Your task to perform on an android device: toggle location history Image 0: 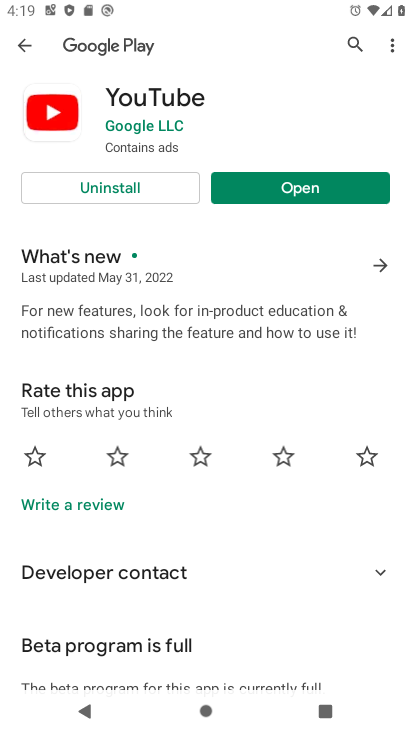
Step 0: drag from (281, 359) to (264, 213)
Your task to perform on an android device: toggle location history Image 1: 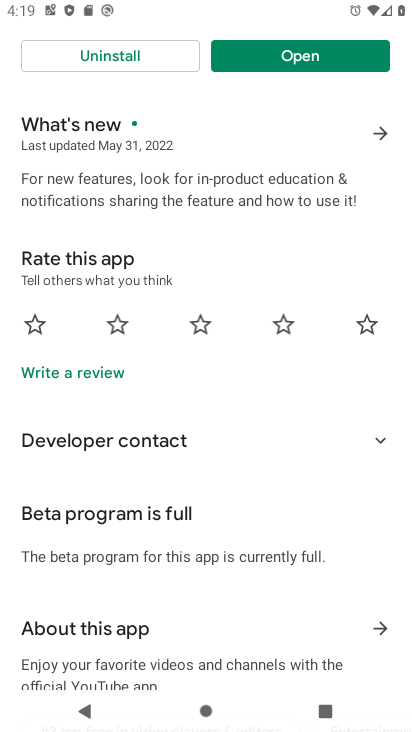
Step 1: press home button
Your task to perform on an android device: toggle location history Image 2: 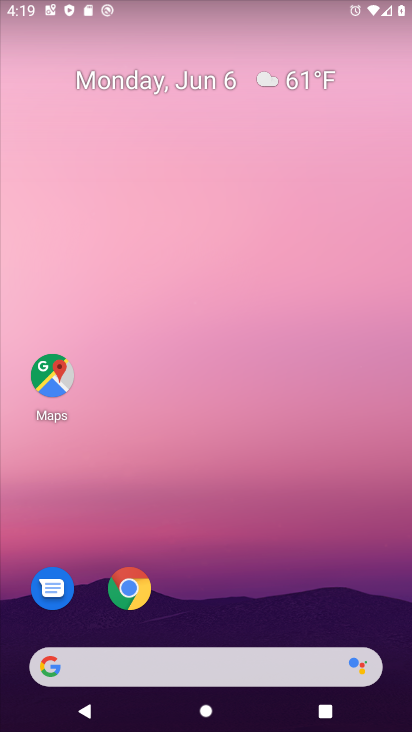
Step 2: click (54, 382)
Your task to perform on an android device: toggle location history Image 3: 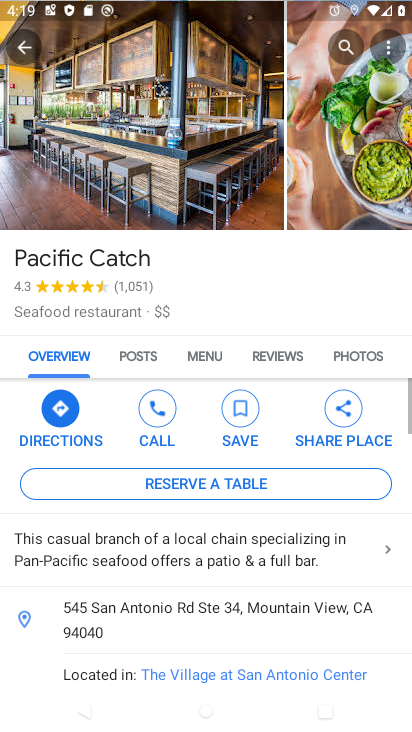
Step 3: press back button
Your task to perform on an android device: toggle location history Image 4: 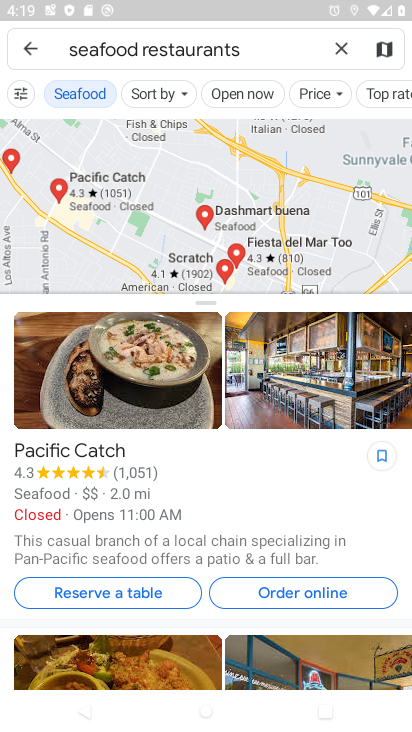
Step 4: press back button
Your task to perform on an android device: toggle location history Image 5: 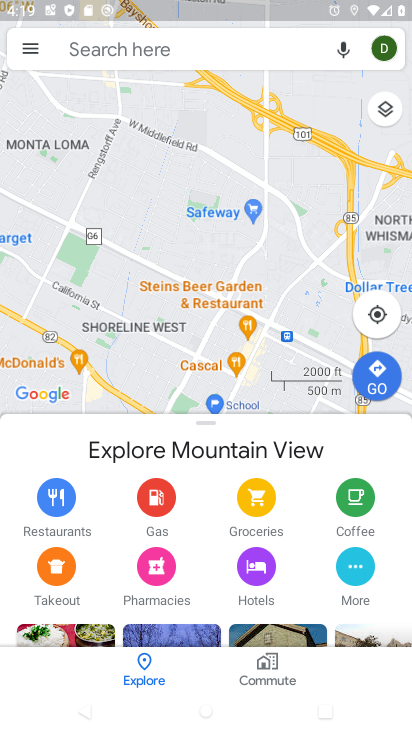
Step 5: click (31, 54)
Your task to perform on an android device: toggle location history Image 6: 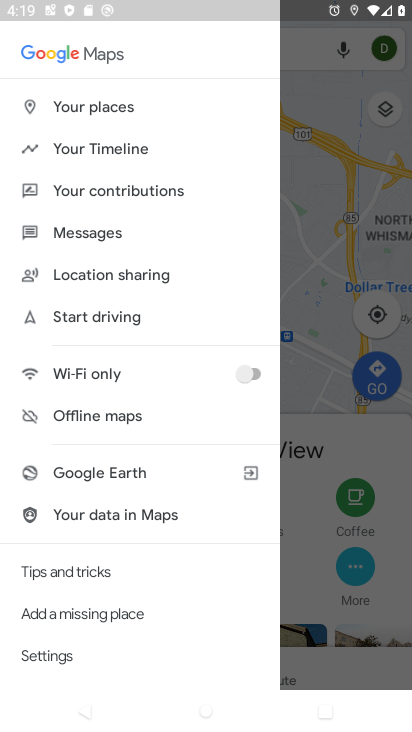
Step 6: click (111, 152)
Your task to perform on an android device: toggle location history Image 7: 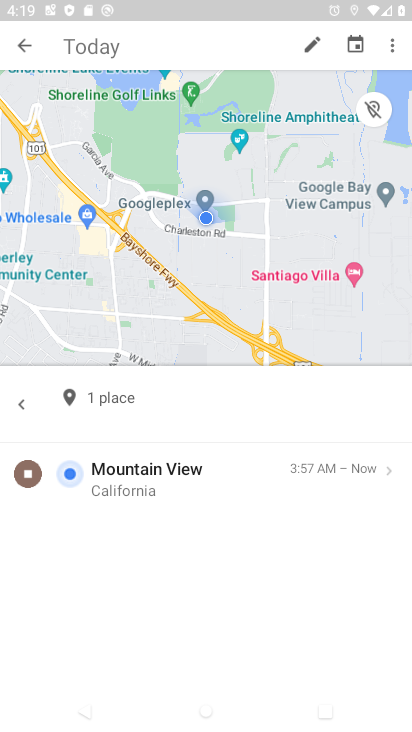
Step 7: click (386, 45)
Your task to perform on an android device: toggle location history Image 8: 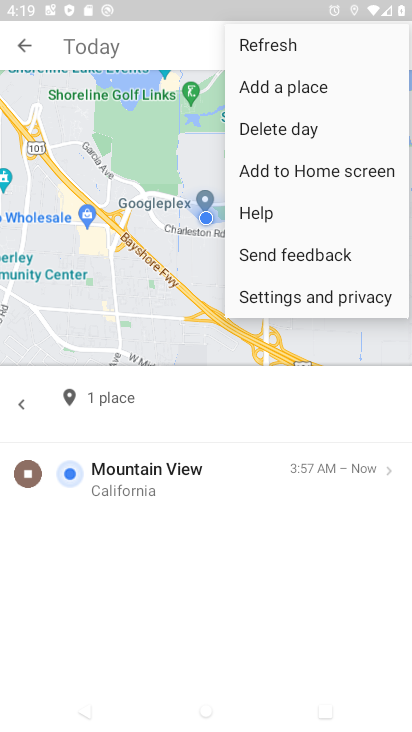
Step 8: click (300, 294)
Your task to perform on an android device: toggle location history Image 9: 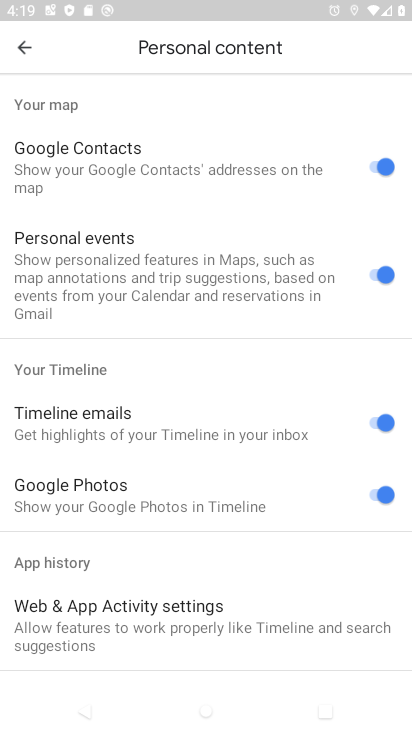
Step 9: drag from (269, 578) to (221, 56)
Your task to perform on an android device: toggle location history Image 10: 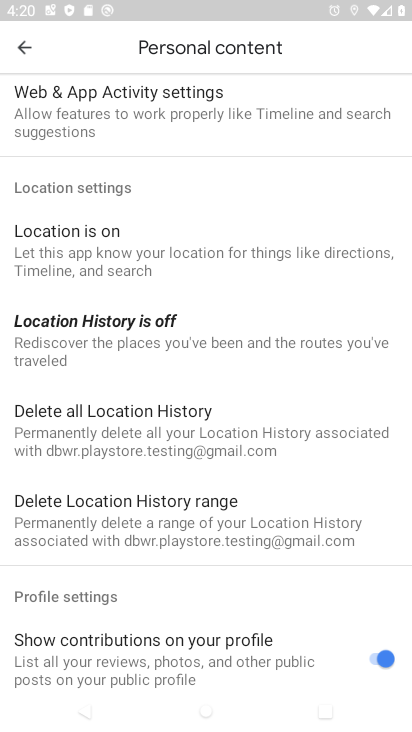
Step 10: click (204, 347)
Your task to perform on an android device: toggle location history Image 11: 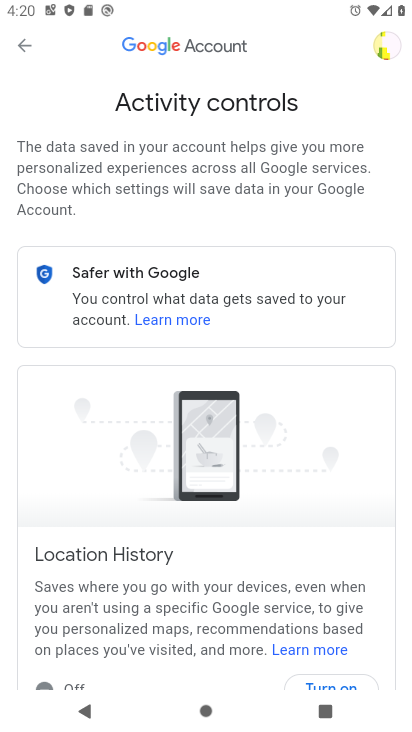
Step 11: drag from (236, 367) to (205, 196)
Your task to perform on an android device: toggle location history Image 12: 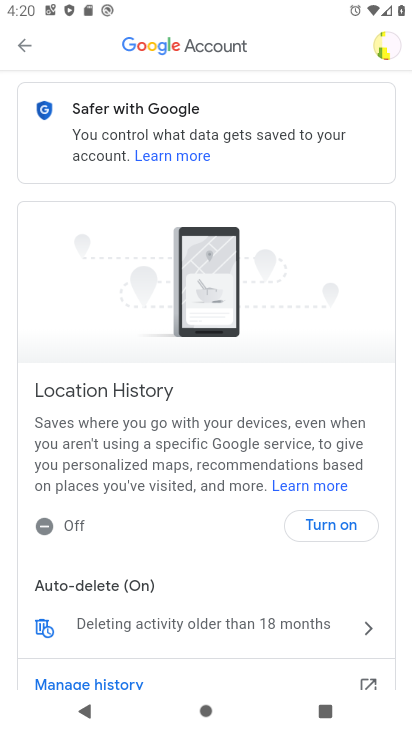
Step 12: click (342, 530)
Your task to perform on an android device: toggle location history Image 13: 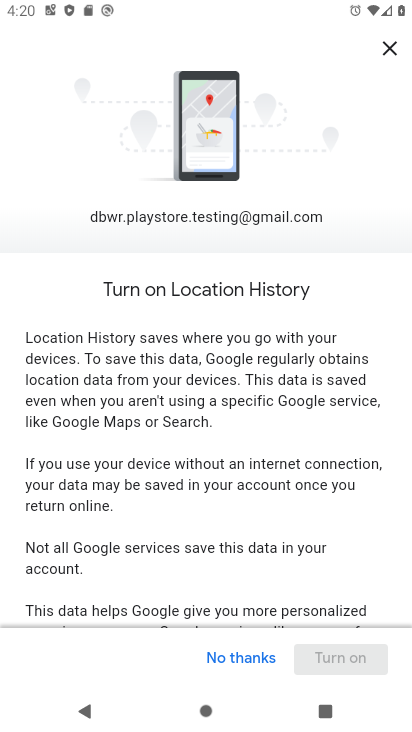
Step 13: drag from (298, 604) to (230, 180)
Your task to perform on an android device: toggle location history Image 14: 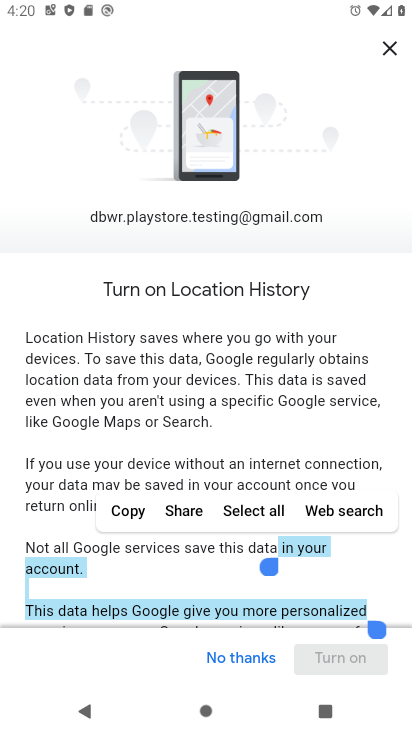
Step 14: click (397, 543)
Your task to perform on an android device: toggle location history Image 15: 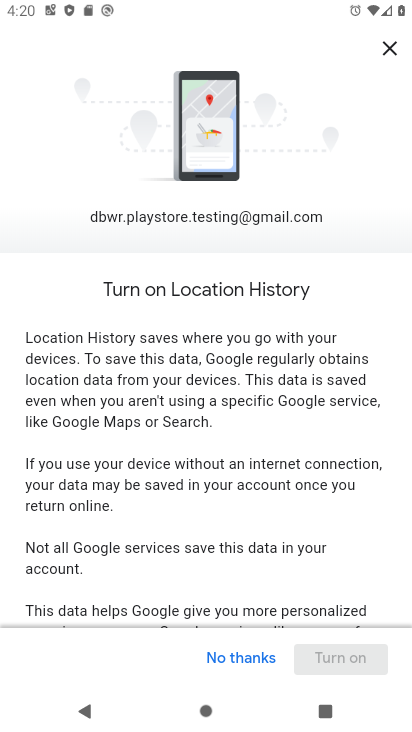
Step 15: drag from (400, 598) to (293, 130)
Your task to perform on an android device: toggle location history Image 16: 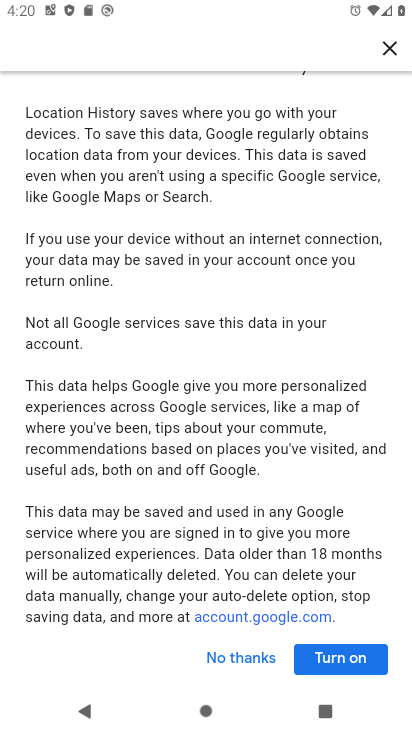
Step 16: click (346, 658)
Your task to perform on an android device: toggle location history Image 17: 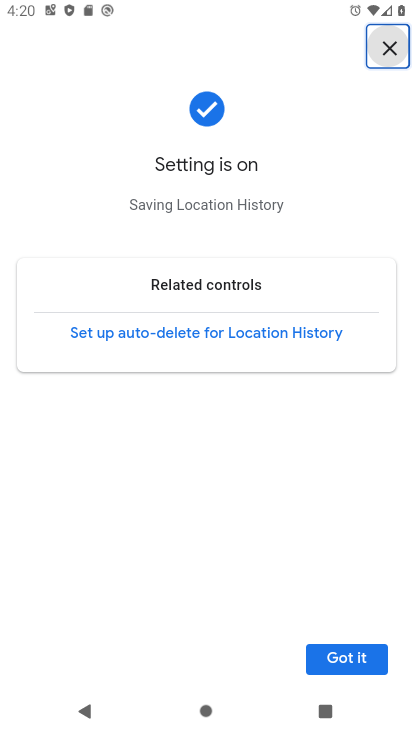
Step 17: click (318, 665)
Your task to perform on an android device: toggle location history Image 18: 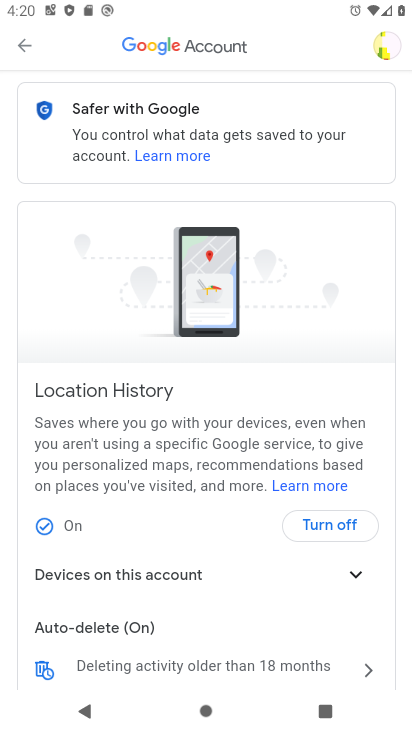
Step 18: task complete